Your task to perform on an android device: Clear all items from cart on target. Add usb-a to the cart on target, then select checkout. Image 0: 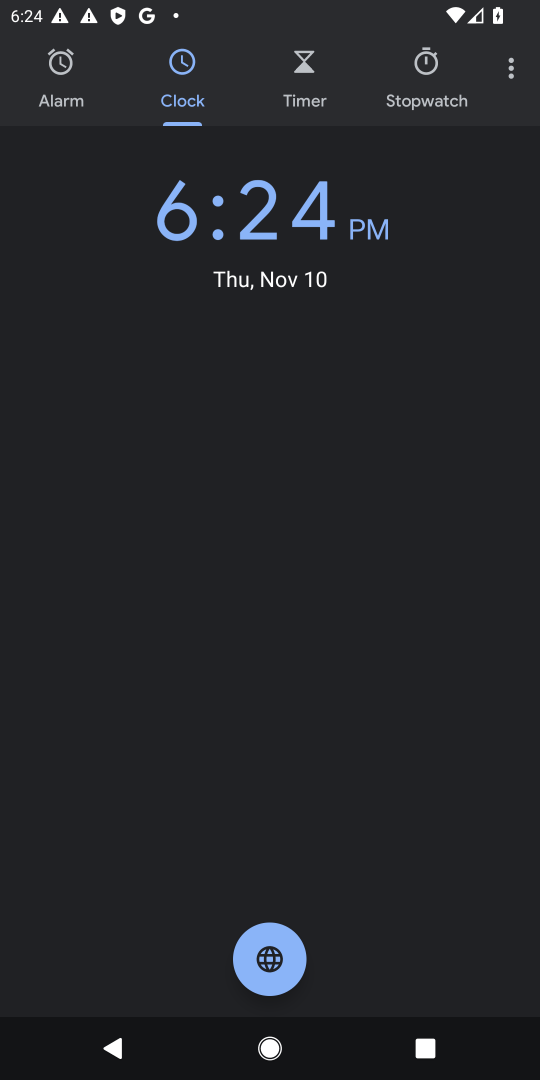
Step 0: press home button
Your task to perform on an android device: Clear all items from cart on target. Add usb-a to the cart on target, then select checkout. Image 1: 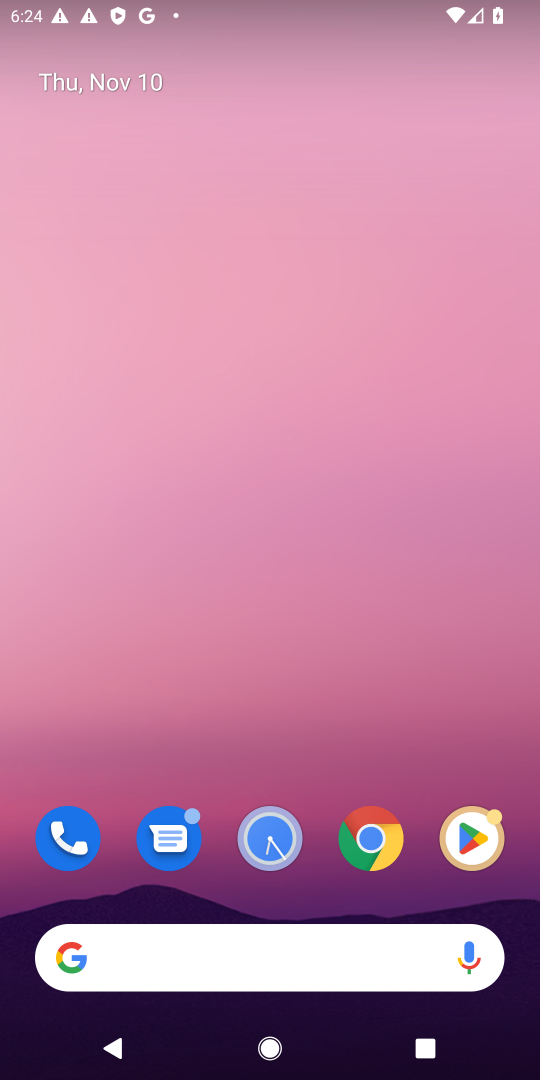
Step 1: drag from (318, 901) to (369, 148)
Your task to perform on an android device: Clear all items from cart on target. Add usb-a to the cart on target, then select checkout. Image 2: 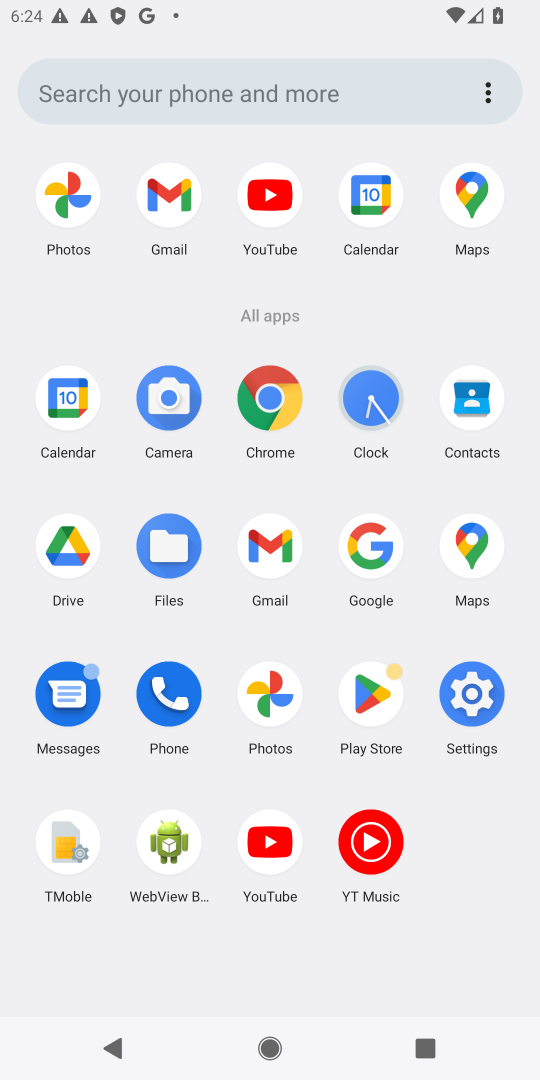
Step 2: click (268, 397)
Your task to perform on an android device: Clear all items from cart on target. Add usb-a to the cart on target, then select checkout. Image 3: 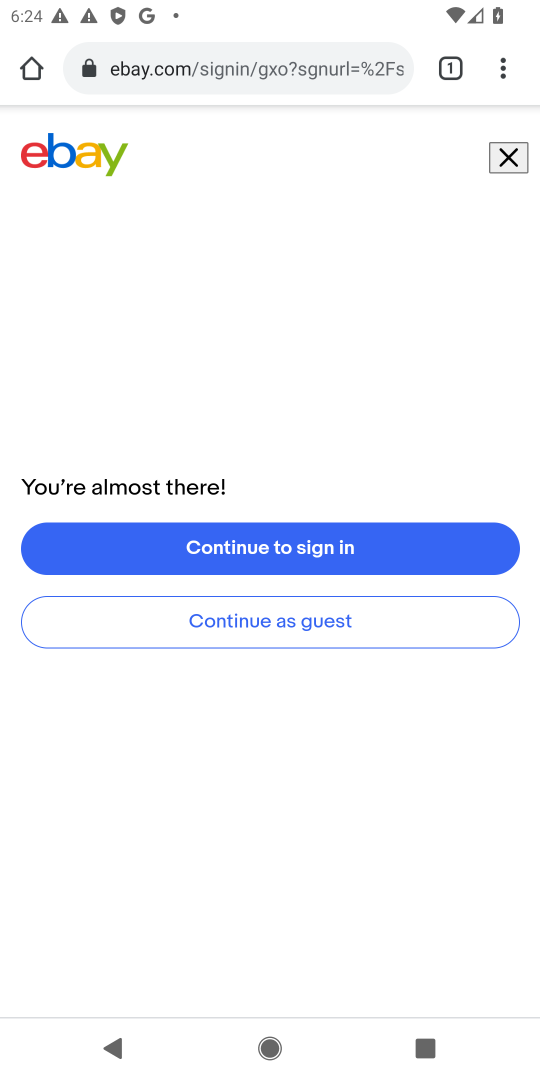
Step 3: click (311, 64)
Your task to perform on an android device: Clear all items from cart on target. Add usb-a to the cart on target, then select checkout. Image 4: 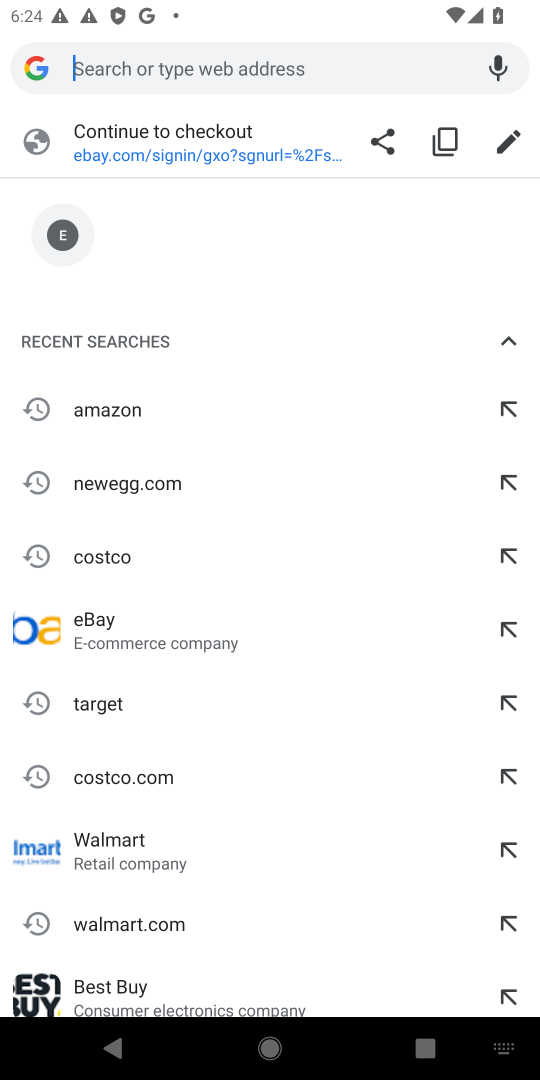
Step 4: type "target.com"
Your task to perform on an android device: Clear all items from cart on target. Add usb-a to the cart on target, then select checkout. Image 5: 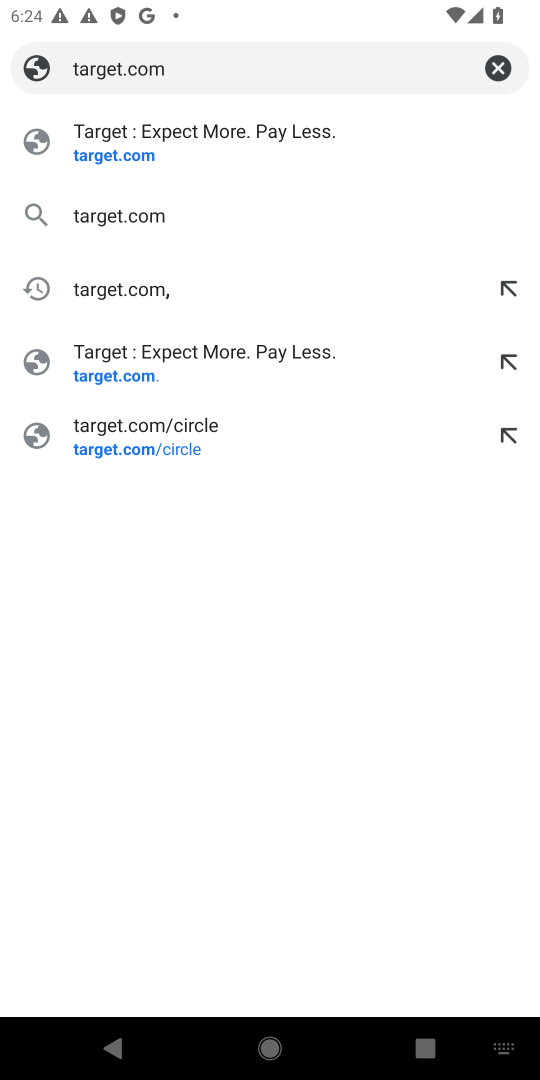
Step 5: press enter
Your task to perform on an android device: Clear all items from cart on target. Add usb-a to the cart on target, then select checkout. Image 6: 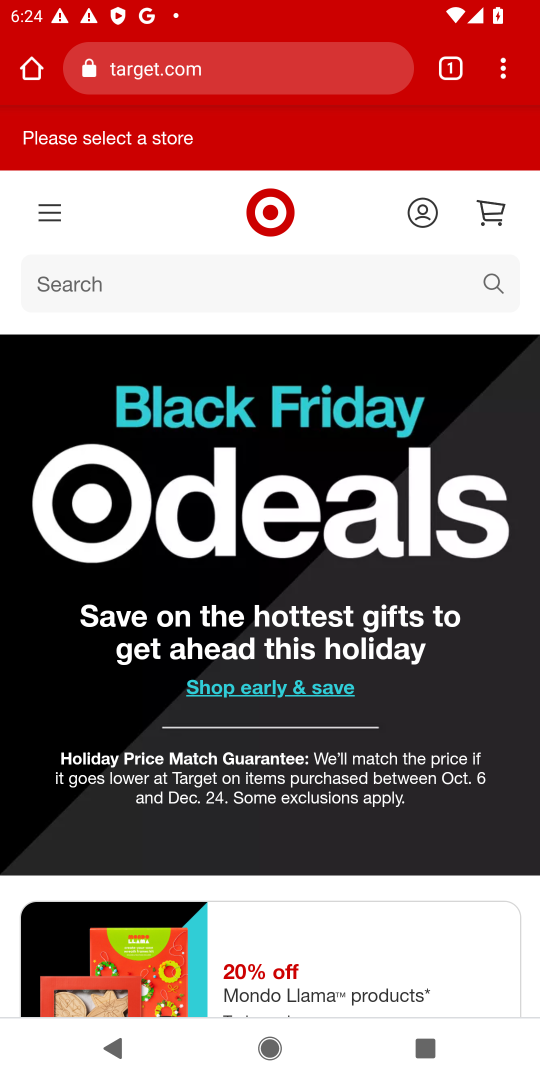
Step 6: click (281, 281)
Your task to perform on an android device: Clear all items from cart on target. Add usb-a to the cart on target, then select checkout. Image 7: 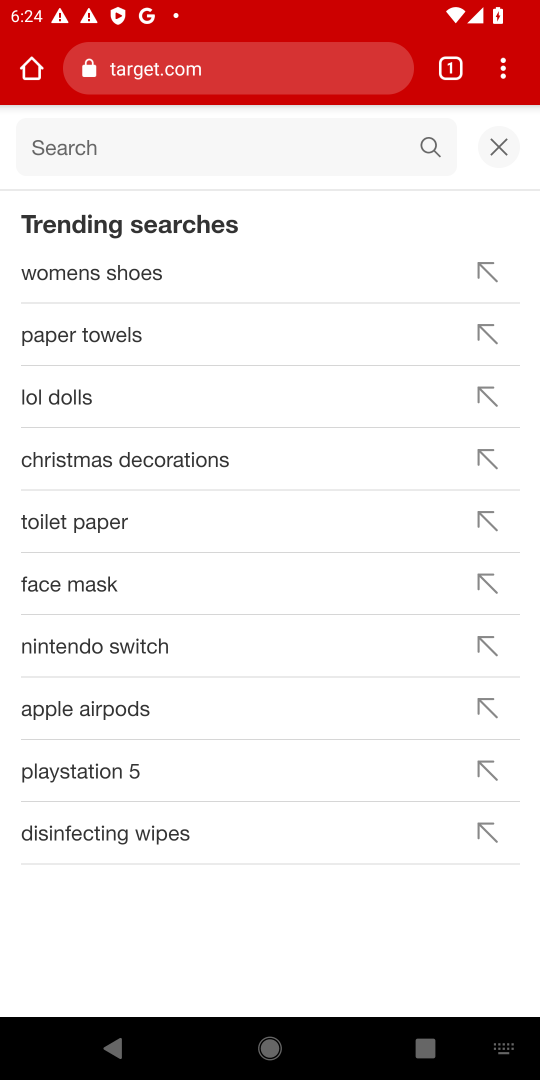
Step 7: type "usb-a"
Your task to perform on an android device: Clear all items from cart on target. Add usb-a to the cart on target, then select checkout. Image 8: 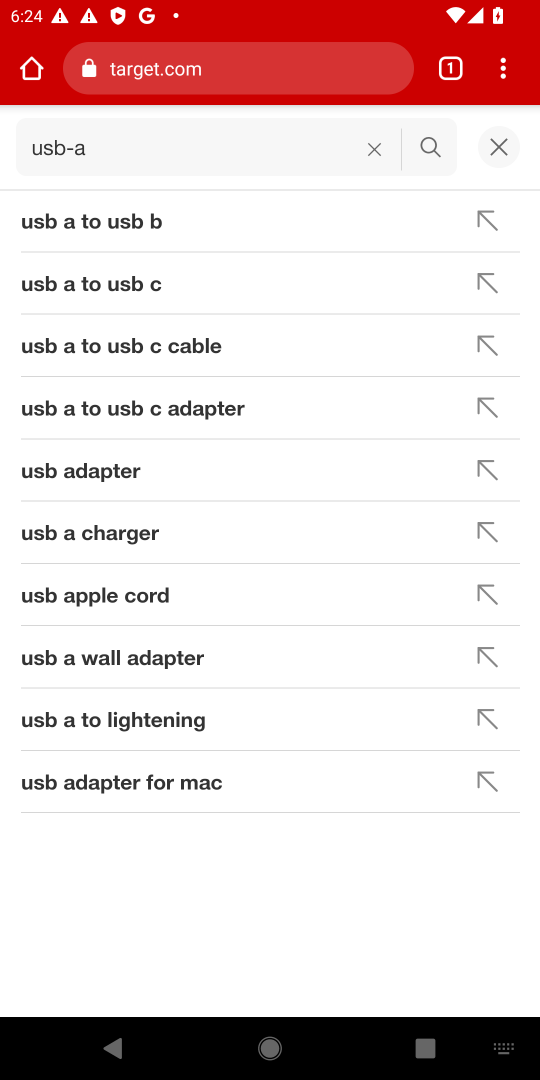
Step 8: press enter
Your task to perform on an android device: Clear all items from cart on target. Add usb-a to the cart on target, then select checkout. Image 9: 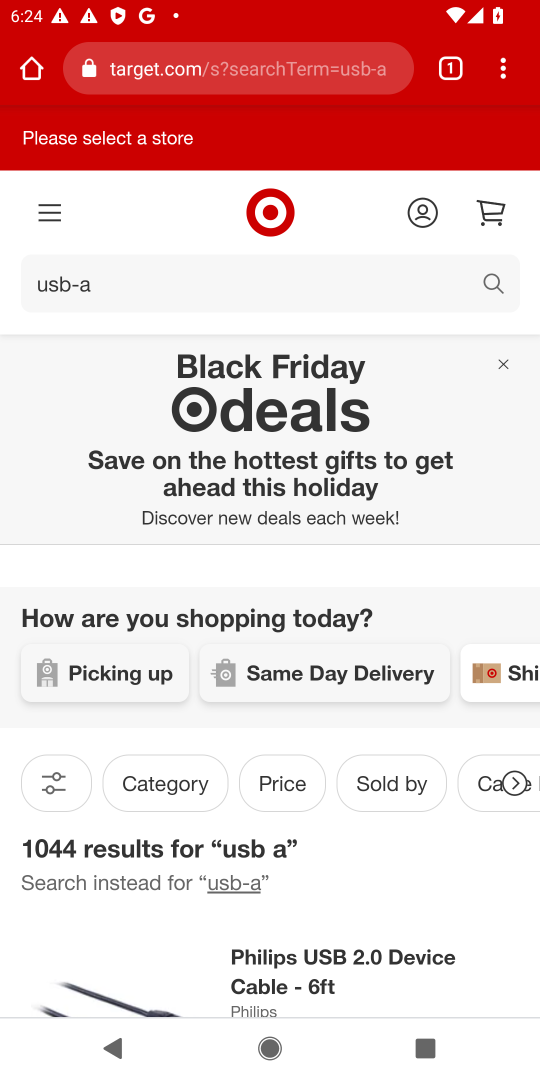
Step 9: drag from (304, 893) to (302, 351)
Your task to perform on an android device: Clear all items from cart on target. Add usb-a to the cart on target, then select checkout. Image 10: 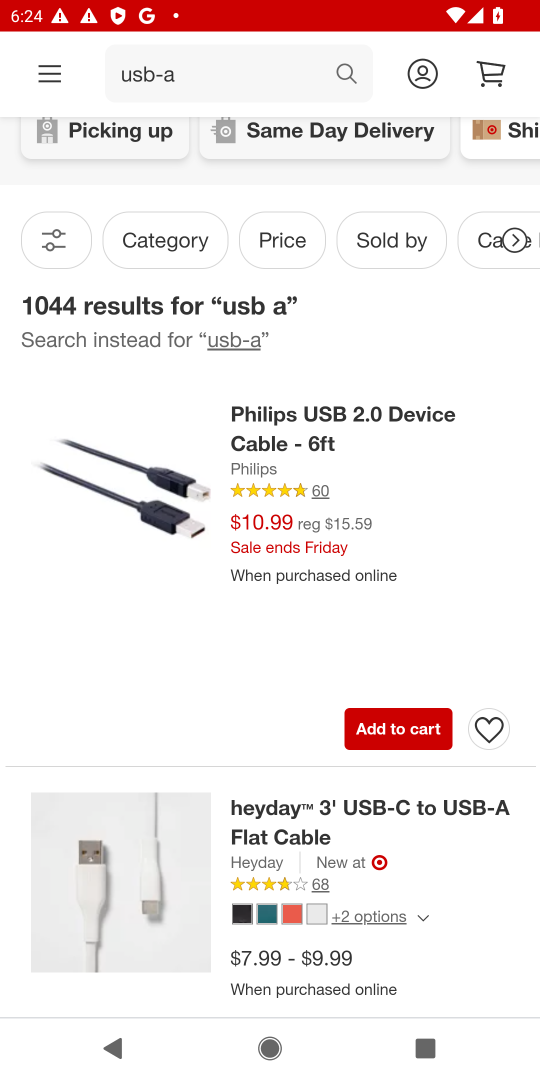
Step 10: drag from (226, 754) to (355, 857)
Your task to perform on an android device: Clear all items from cart on target. Add usb-a to the cart on target, then select checkout. Image 11: 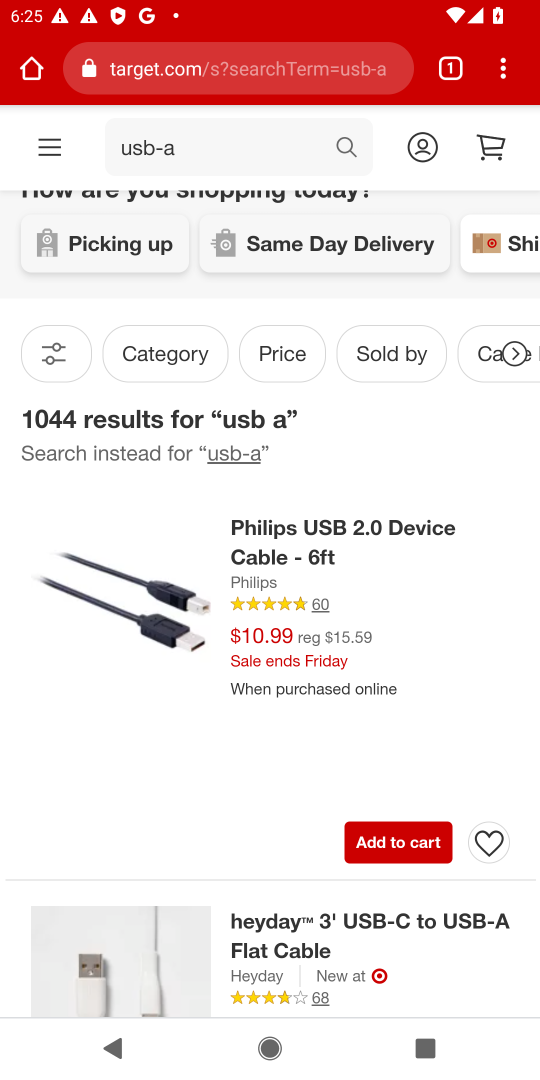
Step 11: click (249, 580)
Your task to perform on an android device: Clear all items from cart on target. Add usb-a to the cart on target, then select checkout. Image 12: 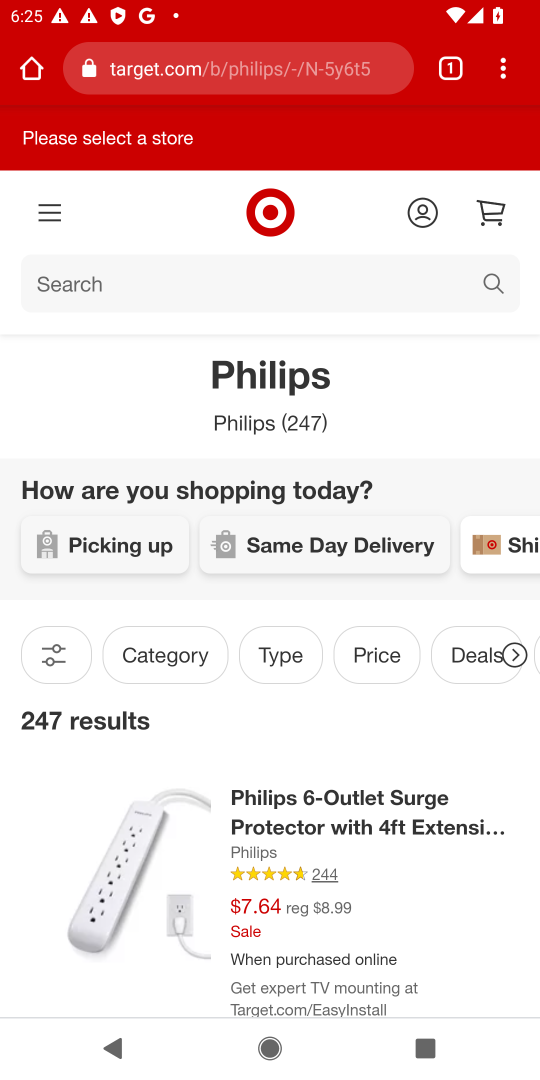
Step 12: drag from (361, 940) to (359, 364)
Your task to perform on an android device: Clear all items from cart on target. Add usb-a to the cart on target, then select checkout. Image 13: 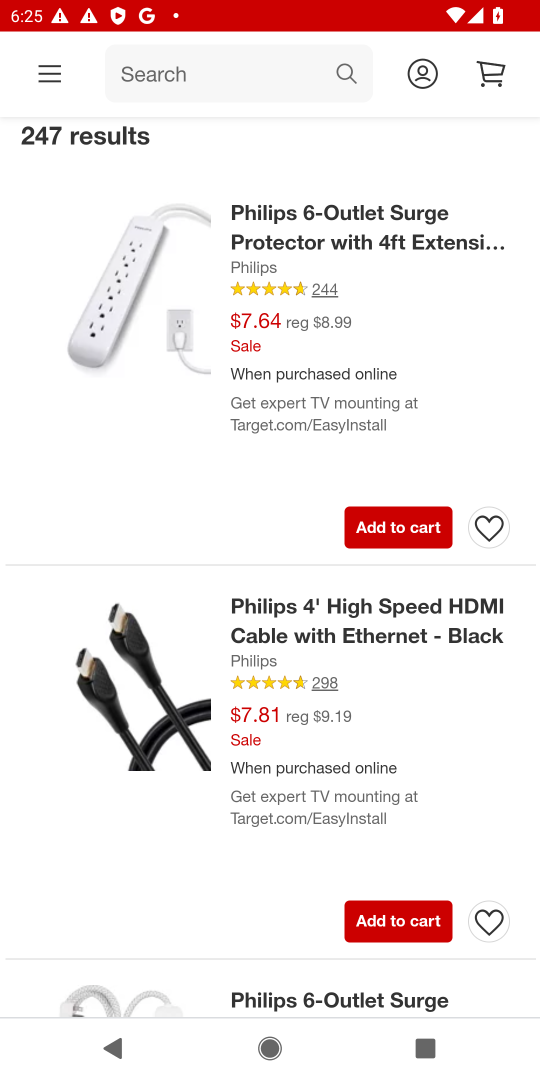
Step 13: press back button
Your task to perform on an android device: Clear all items from cart on target. Add usb-a to the cart on target, then select checkout. Image 14: 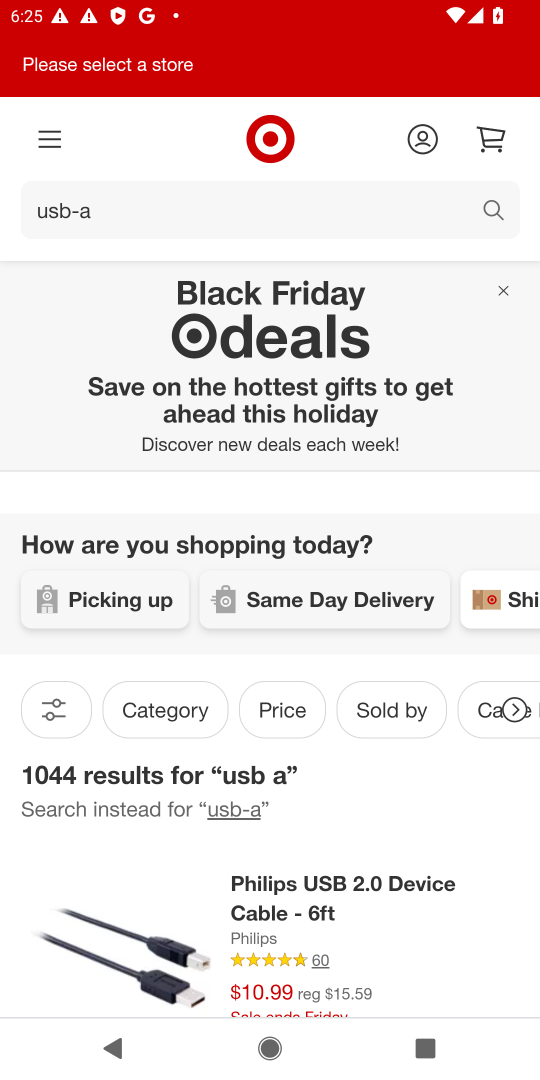
Step 14: drag from (267, 891) to (358, 478)
Your task to perform on an android device: Clear all items from cart on target. Add usb-a to the cart on target, then select checkout. Image 15: 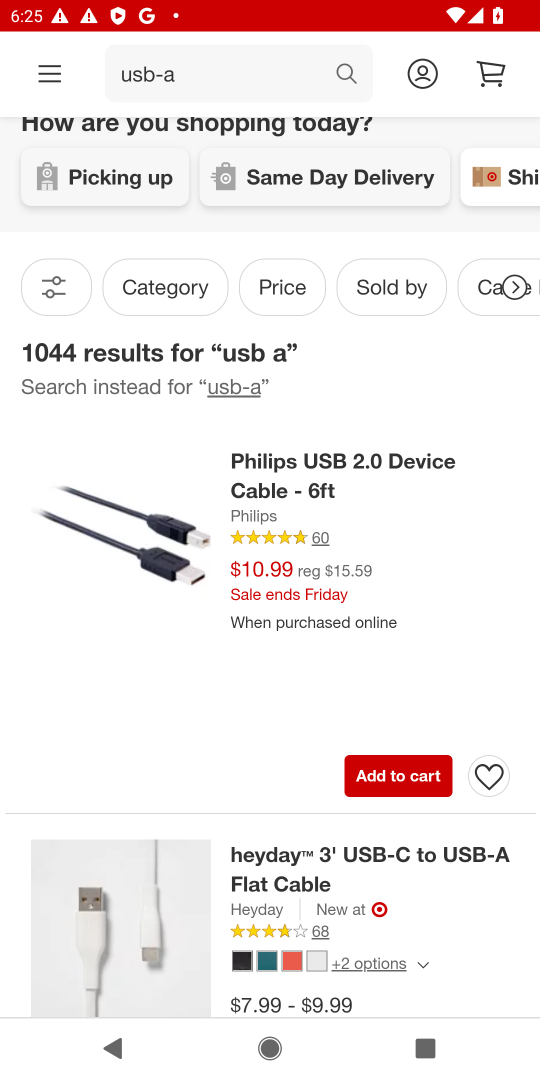
Step 15: click (354, 459)
Your task to perform on an android device: Clear all items from cart on target. Add usb-a to the cart on target, then select checkout. Image 16: 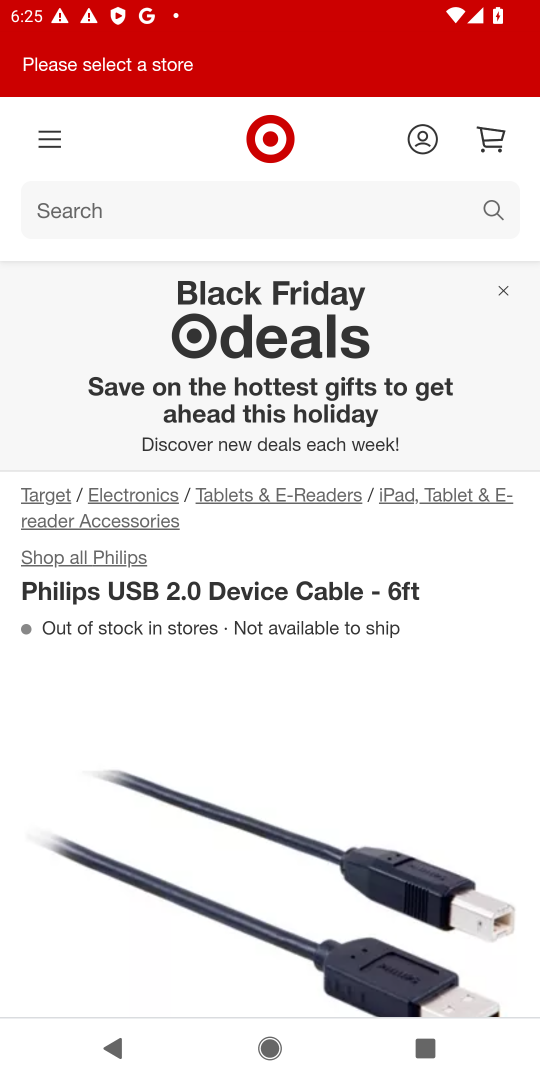
Step 16: drag from (304, 867) to (304, 503)
Your task to perform on an android device: Clear all items from cart on target. Add usb-a to the cart on target, then select checkout. Image 17: 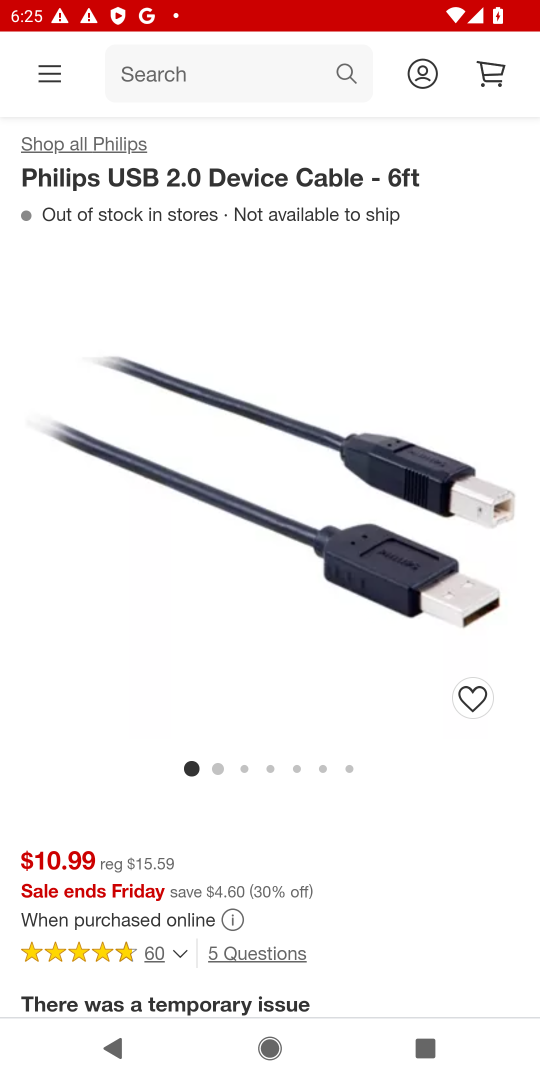
Step 17: drag from (209, 877) to (211, 585)
Your task to perform on an android device: Clear all items from cart on target. Add usb-a to the cart on target, then select checkout. Image 18: 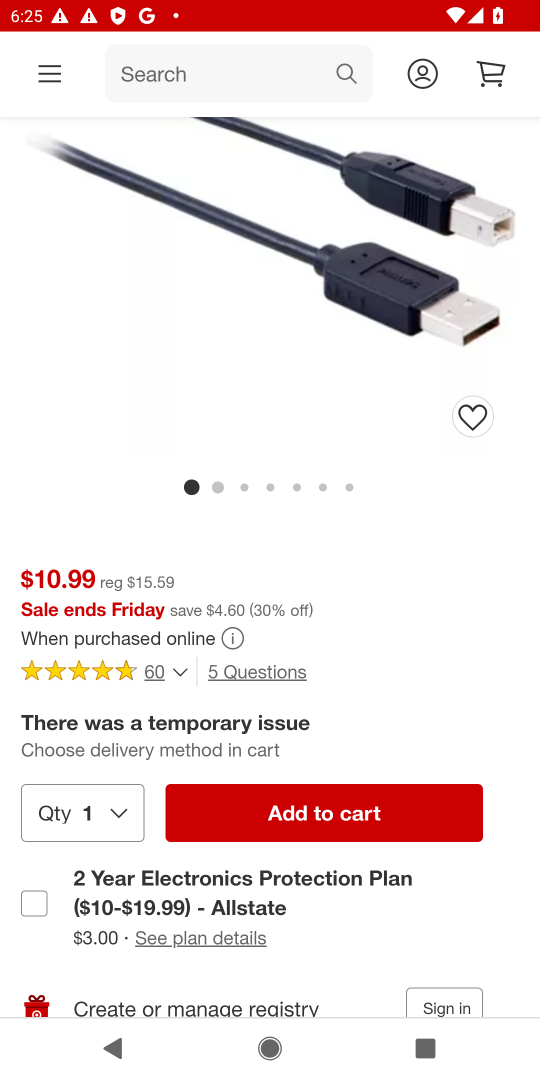
Step 18: click (276, 816)
Your task to perform on an android device: Clear all items from cart on target. Add usb-a to the cart on target, then select checkout. Image 19: 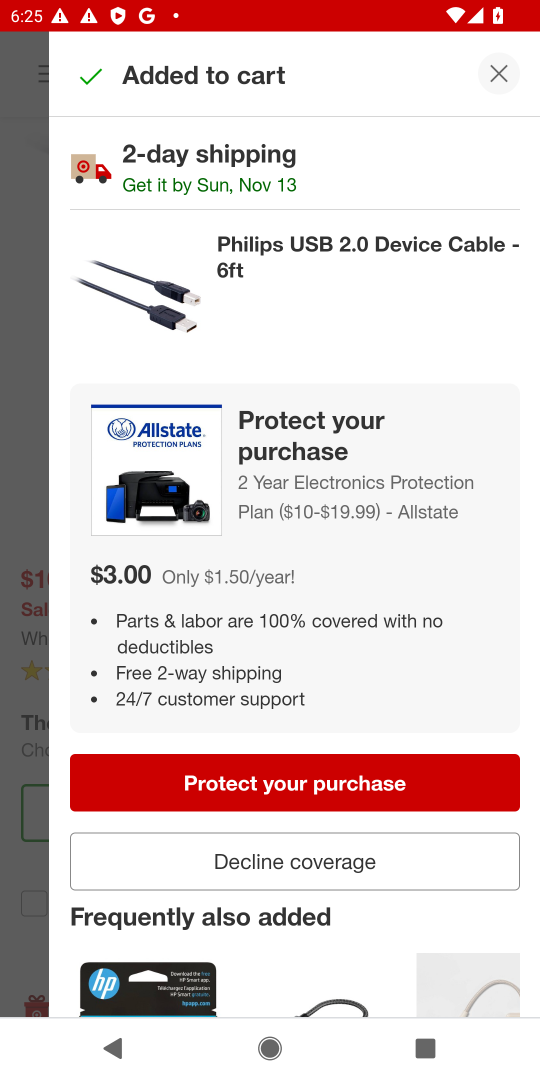
Step 19: click (494, 69)
Your task to perform on an android device: Clear all items from cart on target. Add usb-a to the cart on target, then select checkout. Image 20: 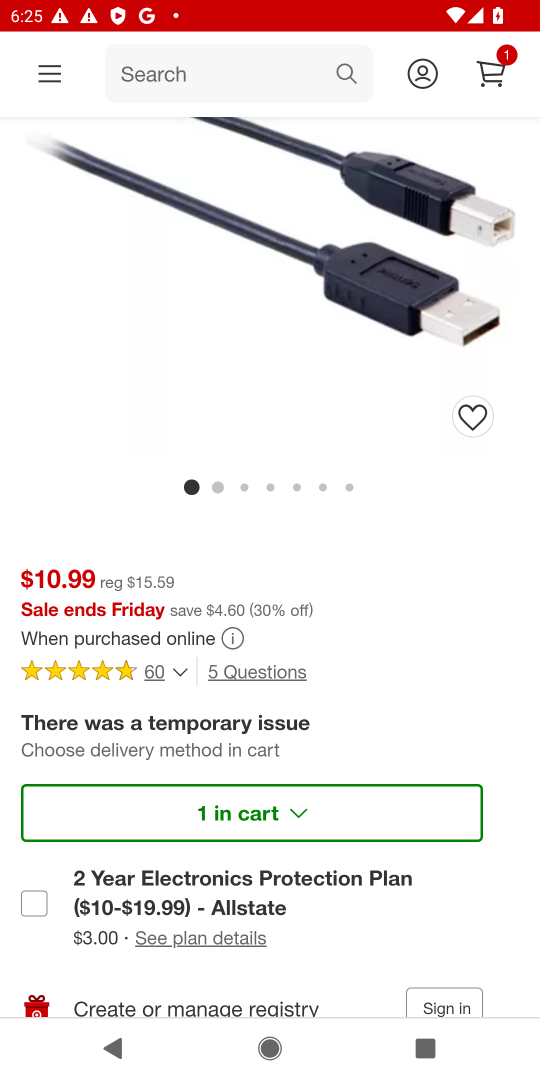
Step 20: click (495, 66)
Your task to perform on an android device: Clear all items from cart on target. Add usb-a to the cart on target, then select checkout. Image 21: 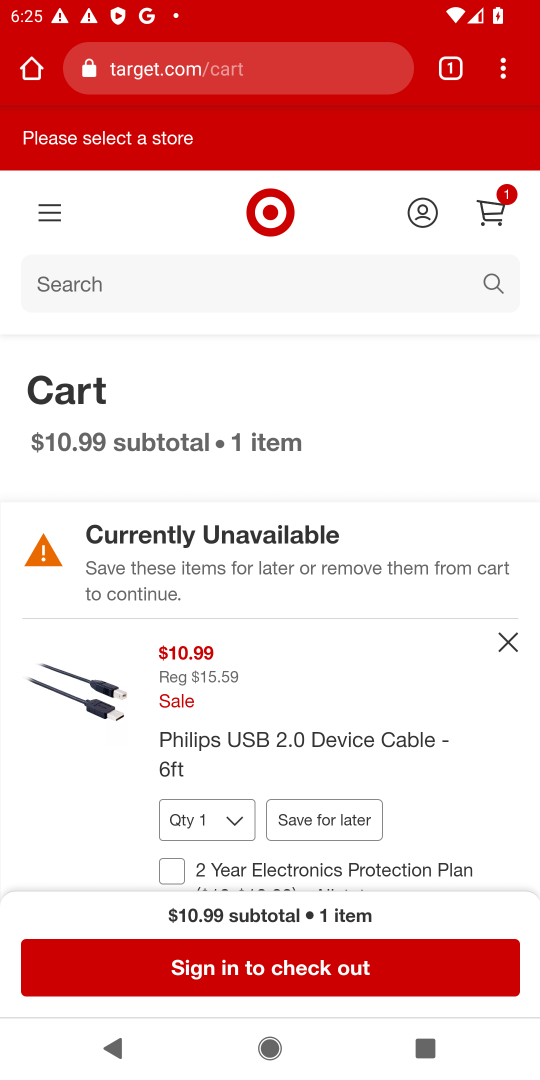
Step 21: click (362, 967)
Your task to perform on an android device: Clear all items from cart on target. Add usb-a to the cart on target, then select checkout. Image 22: 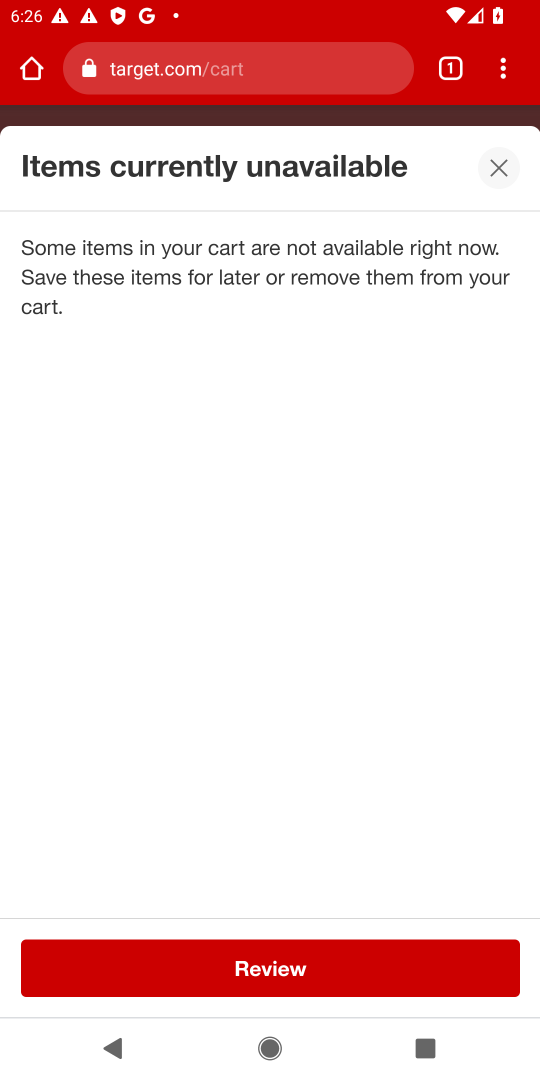
Step 22: task complete